Your task to perform on an android device: What is the news today? Image 0: 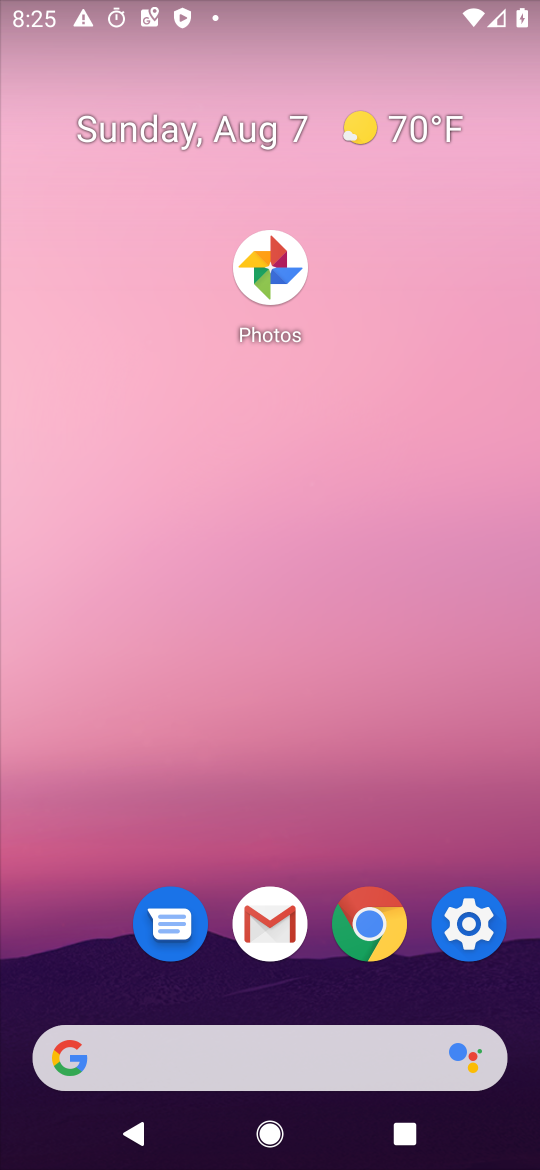
Step 0: drag from (353, 796) to (284, 101)
Your task to perform on an android device: What is the news today? Image 1: 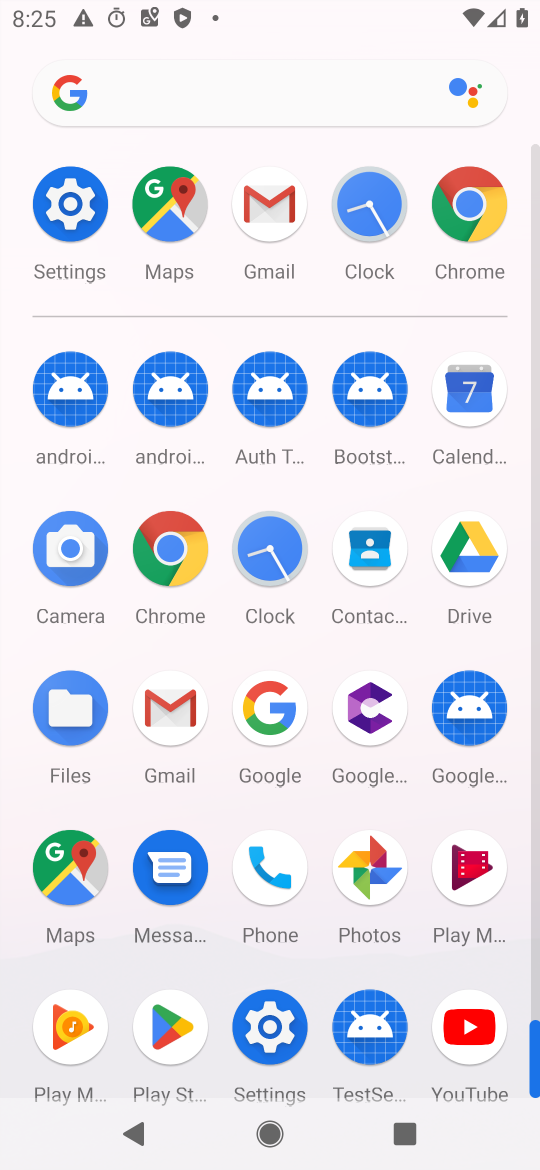
Step 1: click (297, 100)
Your task to perform on an android device: What is the news today? Image 2: 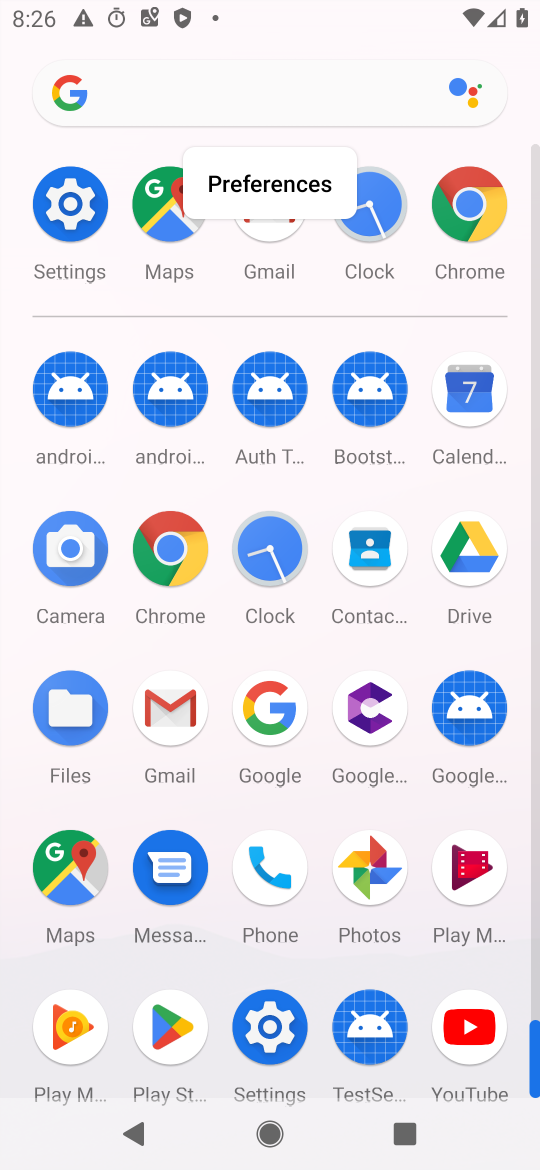
Step 2: click (213, 91)
Your task to perform on an android device: What is the news today? Image 3: 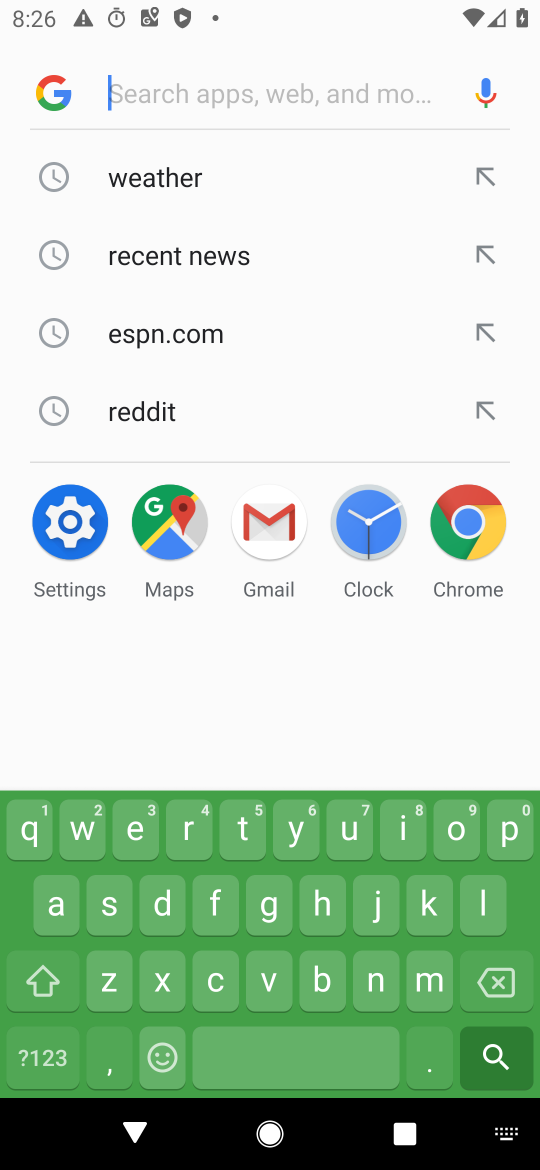
Step 3: click (236, 257)
Your task to perform on an android device: What is the news today? Image 4: 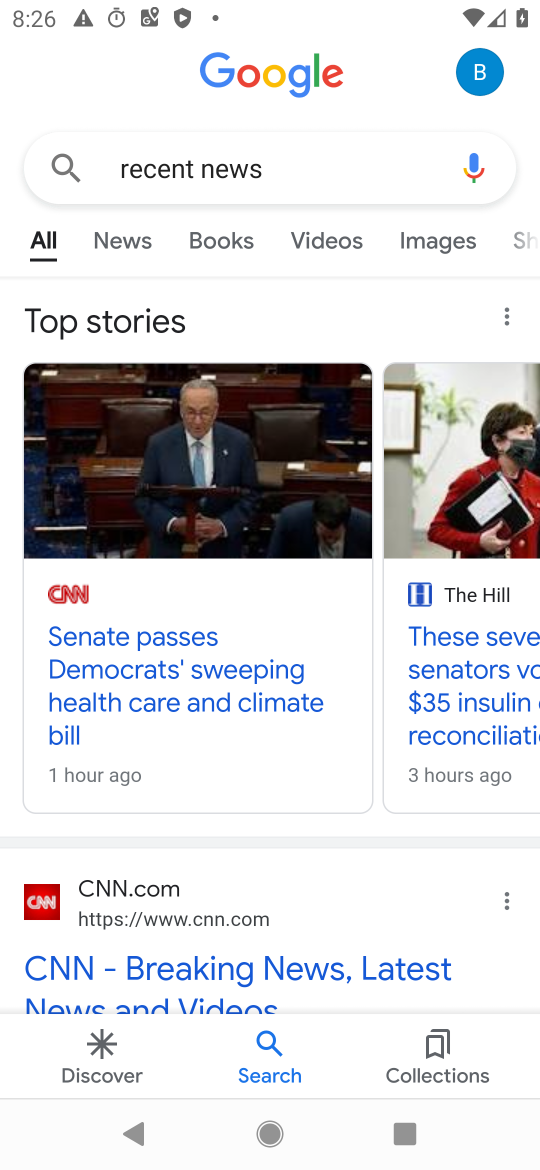
Step 4: task complete